Your task to perform on an android device: toggle show notifications on the lock screen Image 0: 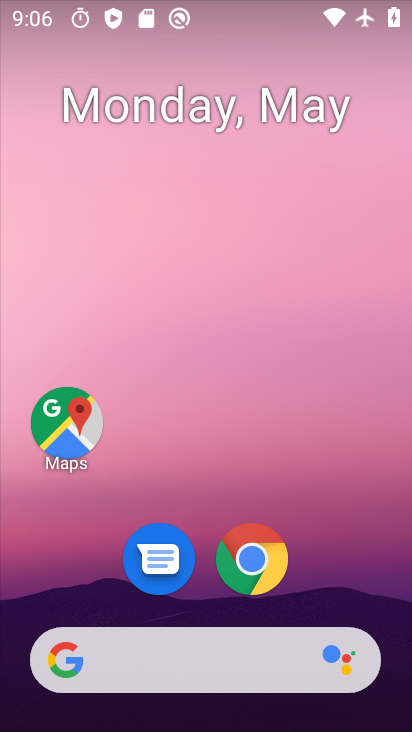
Step 0: drag from (336, 537) to (324, 28)
Your task to perform on an android device: toggle show notifications on the lock screen Image 1: 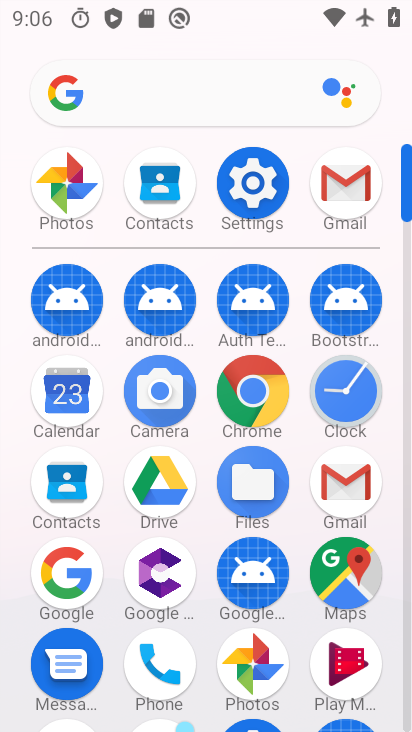
Step 1: click (252, 182)
Your task to perform on an android device: toggle show notifications on the lock screen Image 2: 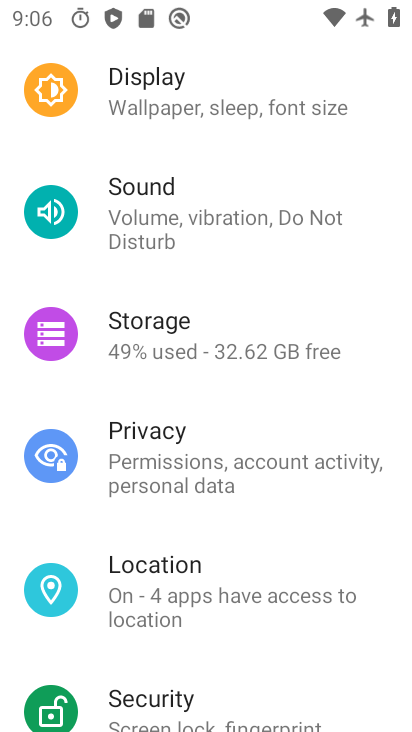
Step 2: drag from (188, 287) to (230, 610)
Your task to perform on an android device: toggle show notifications on the lock screen Image 3: 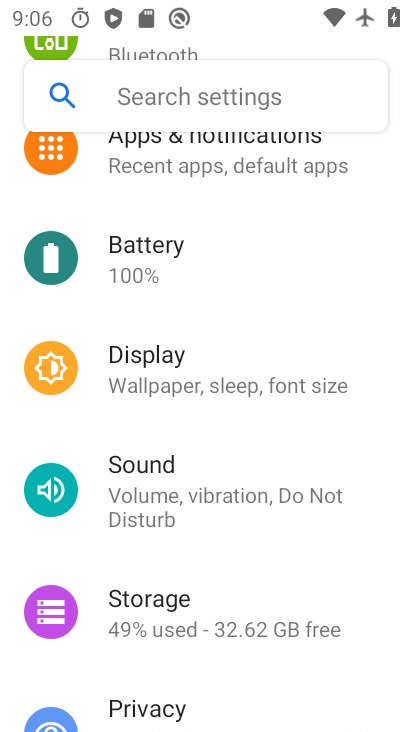
Step 3: drag from (244, 322) to (294, 604)
Your task to perform on an android device: toggle show notifications on the lock screen Image 4: 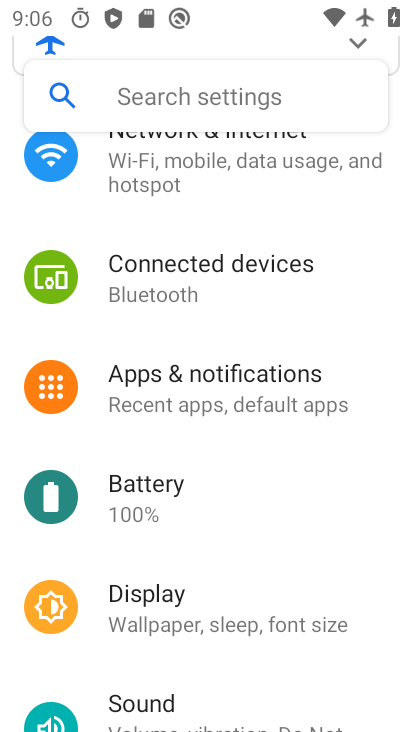
Step 4: click (265, 394)
Your task to perform on an android device: toggle show notifications on the lock screen Image 5: 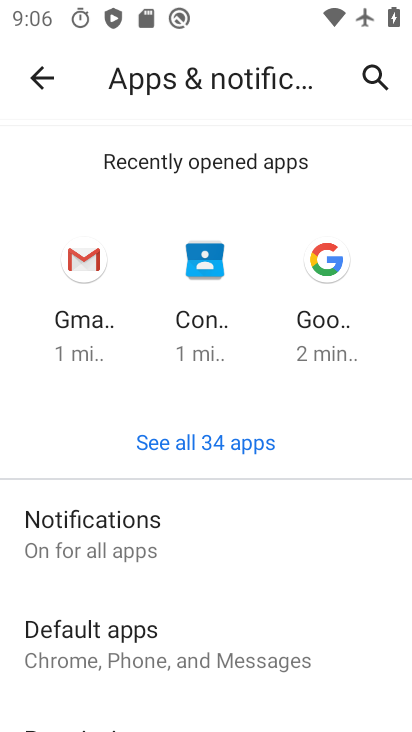
Step 5: click (122, 541)
Your task to perform on an android device: toggle show notifications on the lock screen Image 6: 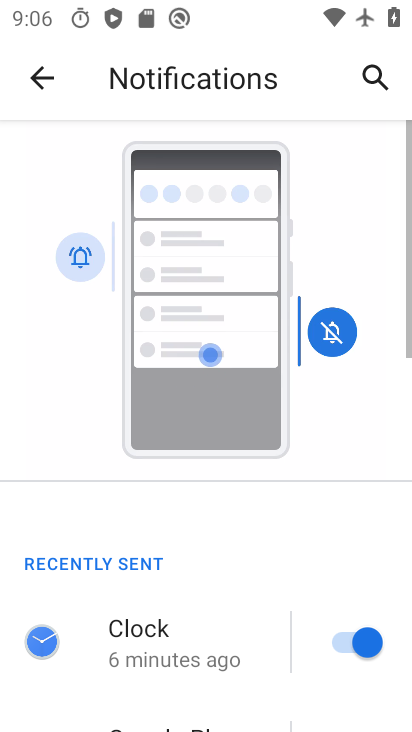
Step 6: drag from (160, 649) to (171, 206)
Your task to perform on an android device: toggle show notifications on the lock screen Image 7: 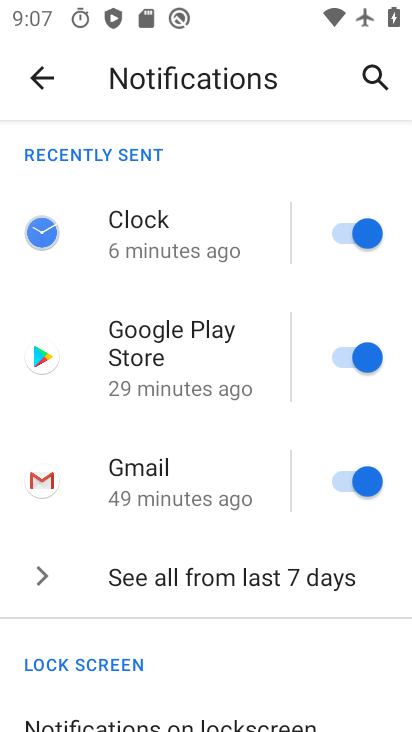
Step 7: drag from (151, 645) to (143, 274)
Your task to perform on an android device: toggle show notifications on the lock screen Image 8: 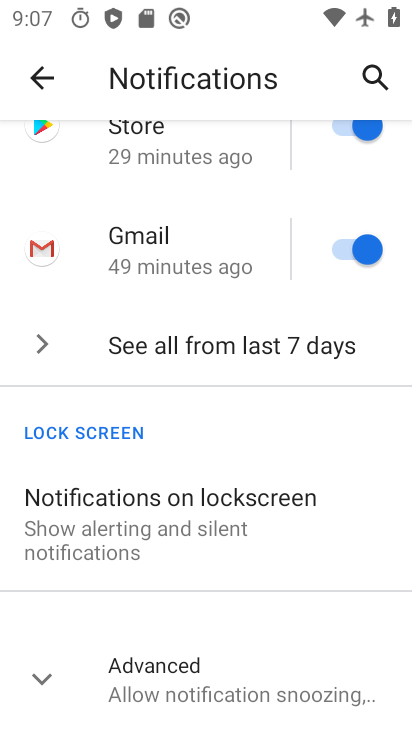
Step 8: click (124, 507)
Your task to perform on an android device: toggle show notifications on the lock screen Image 9: 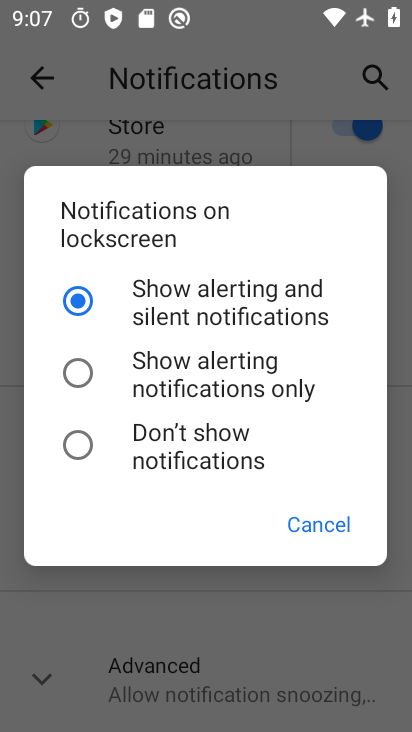
Step 9: click (177, 380)
Your task to perform on an android device: toggle show notifications on the lock screen Image 10: 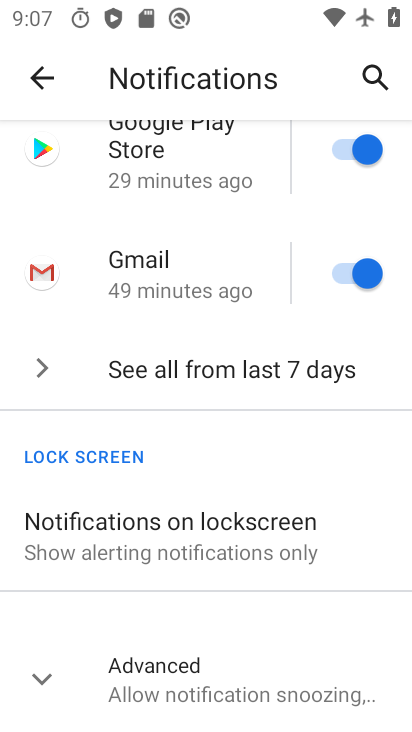
Step 10: task complete